Your task to perform on an android device: What is the recent news? Image 0: 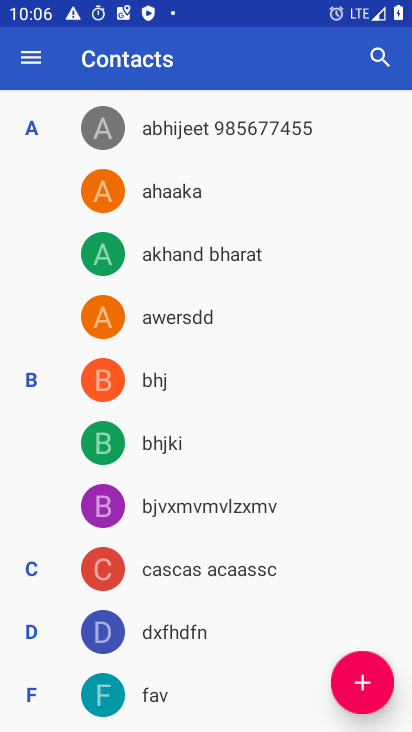
Step 0: press back button
Your task to perform on an android device: What is the recent news? Image 1: 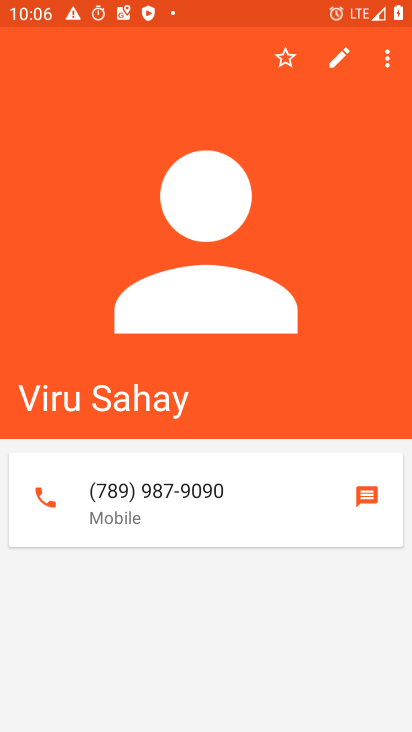
Step 1: press home button
Your task to perform on an android device: What is the recent news? Image 2: 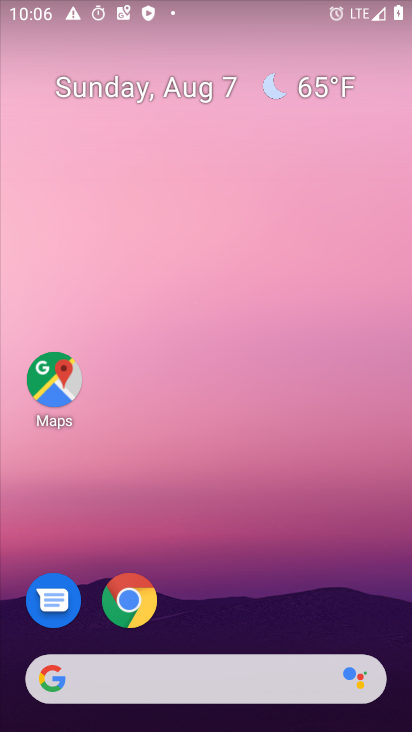
Step 2: drag from (162, 310) to (137, 131)
Your task to perform on an android device: What is the recent news? Image 3: 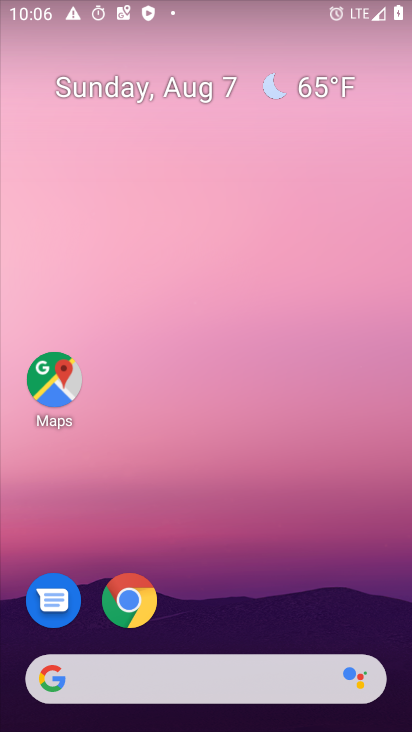
Step 3: click (183, 670)
Your task to perform on an android device: What is the recent news? Image 4: 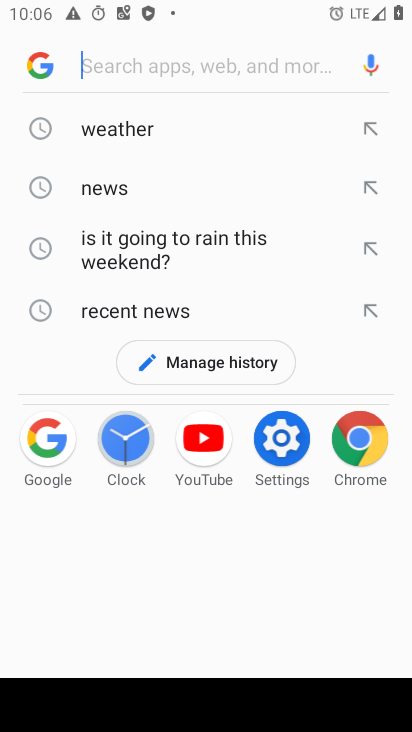
Step 4: click (181, 308)
Your task to perform on an android device: What is the recent news? Image 5: 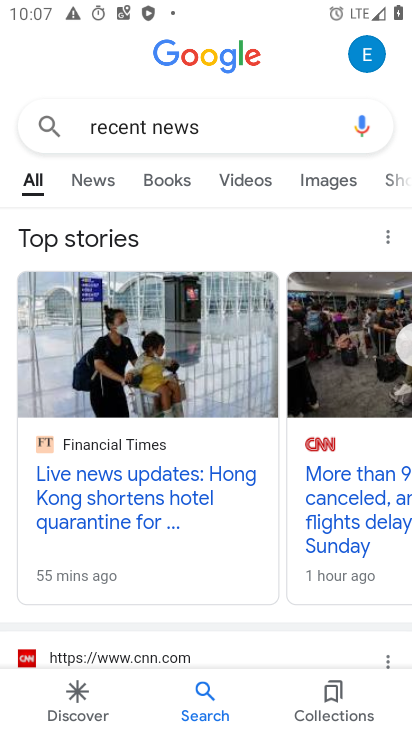
Step 5: task complete